Your task to perform on an android device: open a bookmark in the chrome app Image 0: 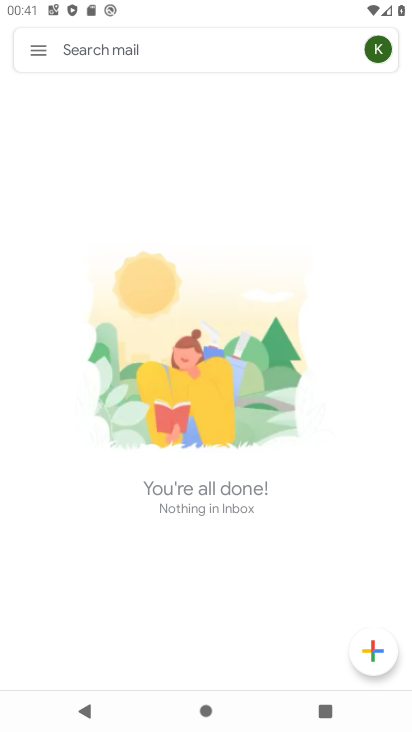
Step 0: drag from (189, 621) to (209, 25)
Your task to perform on an android device: open a bookmark in the chrome app Image 1: 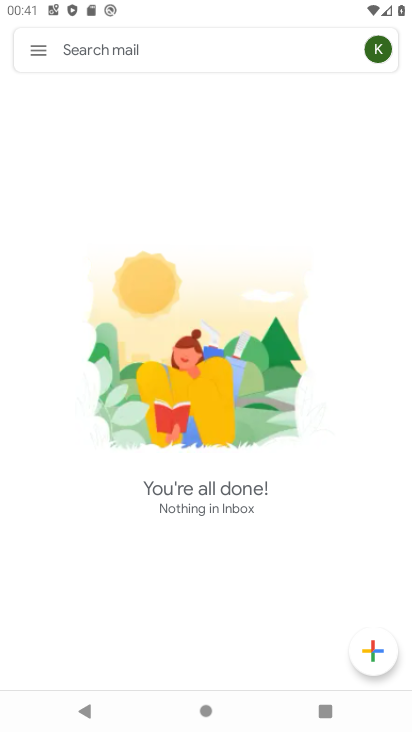
Step 1: press home button
Your task to perform on an android device: open a bookmark in the chrome app Image 2: 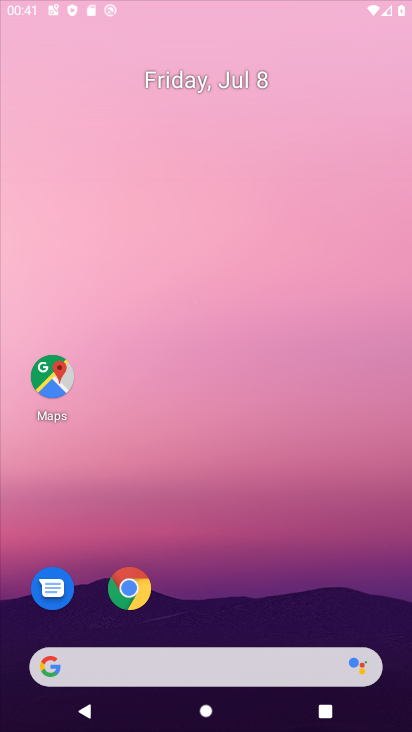
Step 2: drag from (189, 639) to (183, 105)
Your task to perform on an android device: open a bookmark in the chrome app Image 3: 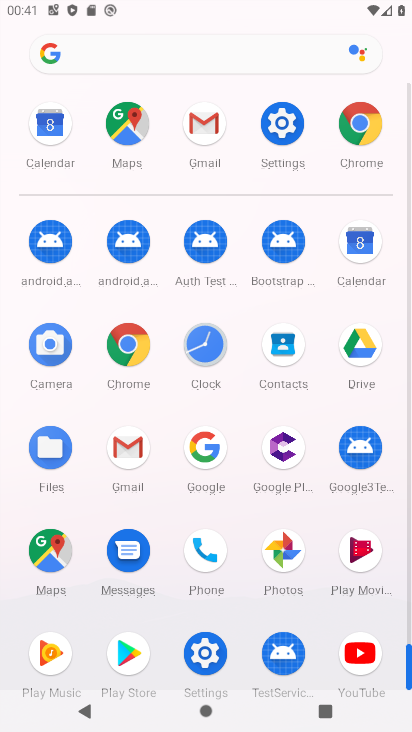
Step 3: click (361, 120)
Your task to perform on an android device: open a bookmark in the chrome app Image 4: 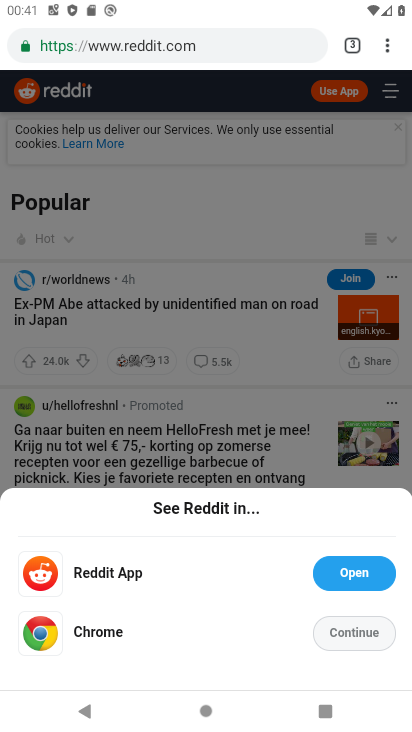
Step 4: press home button
Your task to perform on an android device: open a bookmark in the chrome app Image 5: 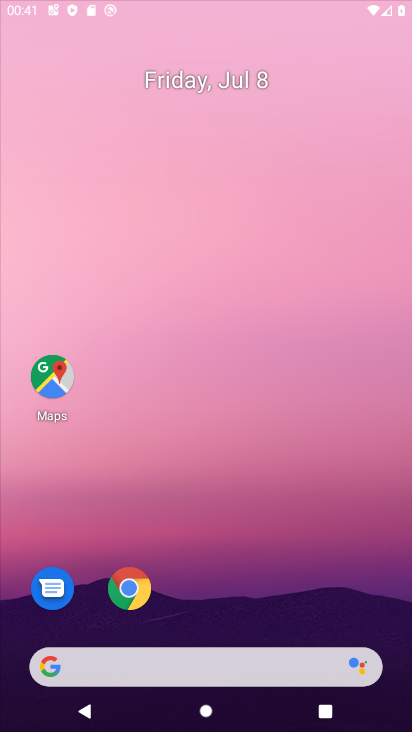
Step 5: drag from (185, 621) to (143, 16)
Your task to perform on an android device: open a bookmark in the chrome app Image 6: 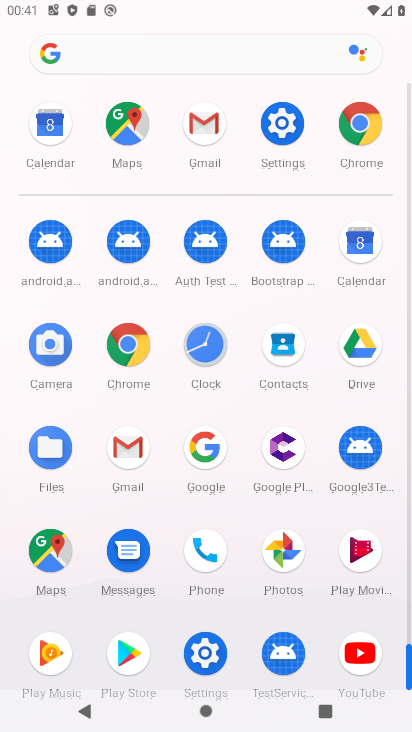
Step 6: click (353, 123)
Your task to perform on an android device: open a bookmark in the chrome app Image 7: 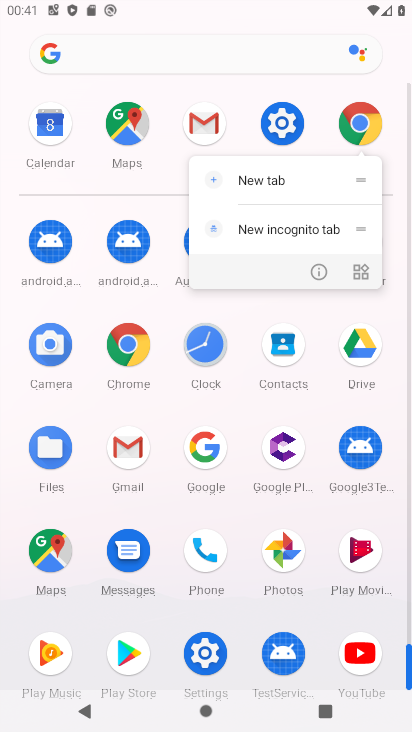
Step 7: click (312, 269)
Your task to perform on an android device: open a bookmark in the chrome app Image 8: 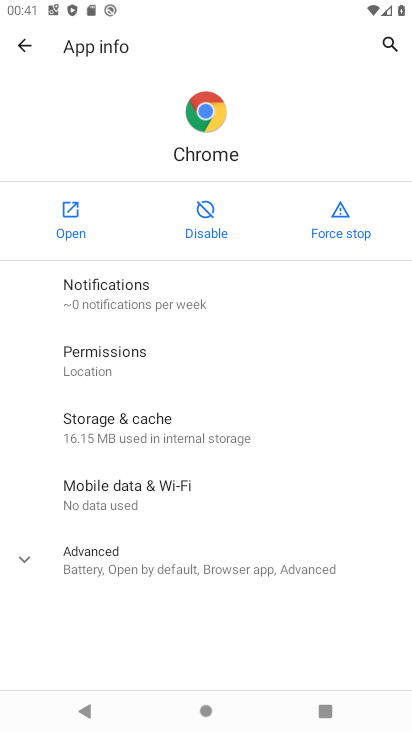
Step 8: click (57, 208)
Your task to perform on an android device: open a bookmark in the chrome app Image 9: 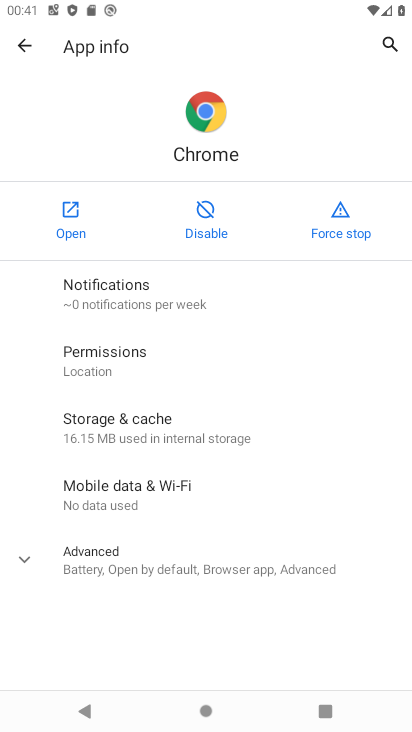
Step 9: click (57, 208)
Your task to perform on an android device: open a bookmark in the chrome app Image 10: 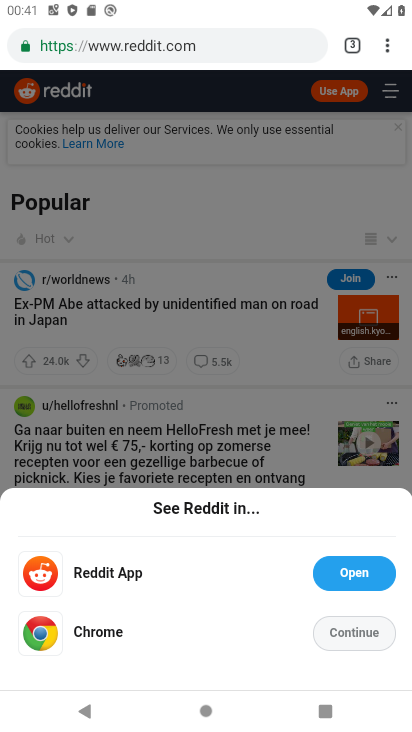
Step 10: click (388, 48)
Your task to perform on an android device: open a bookmark in the chrome app Image 11: 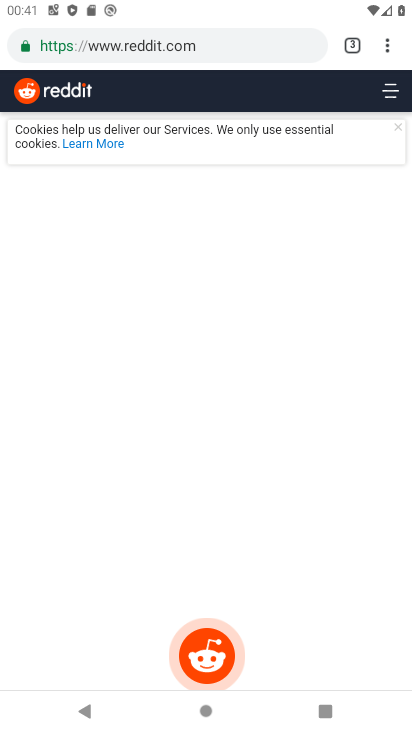
Step 11: click (395, 45)
Your task to perform on an android device: open a bookmark in the chrome app Image 12: 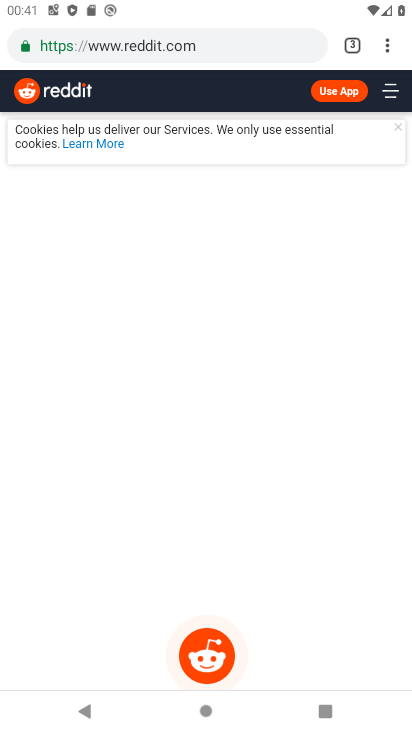
Step 12: drag from (395, 45) to (273, 169)
Your task to perform on an android device: open a bookmark in the chrome app Image 13: 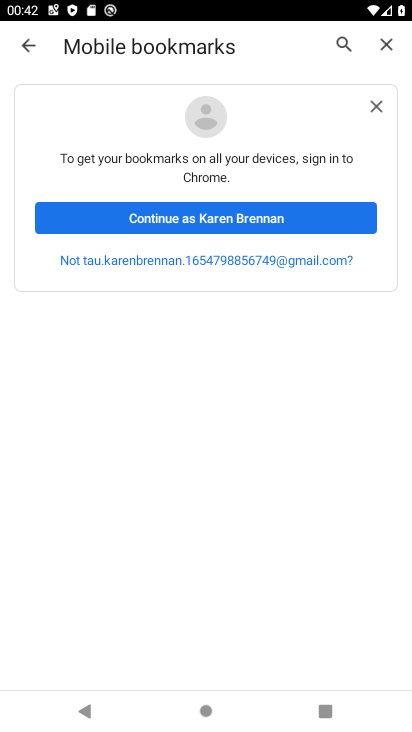
Step 13: click (246, 572)
Your task to perform on an android device: open a bookmark in the chrome app Image 14: 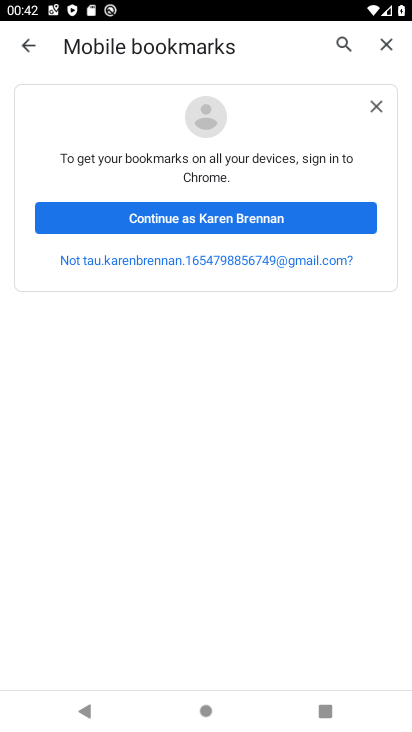
Step 14: task complete